Your task to perform on an android device: find which apps use the phone's location Image 0: 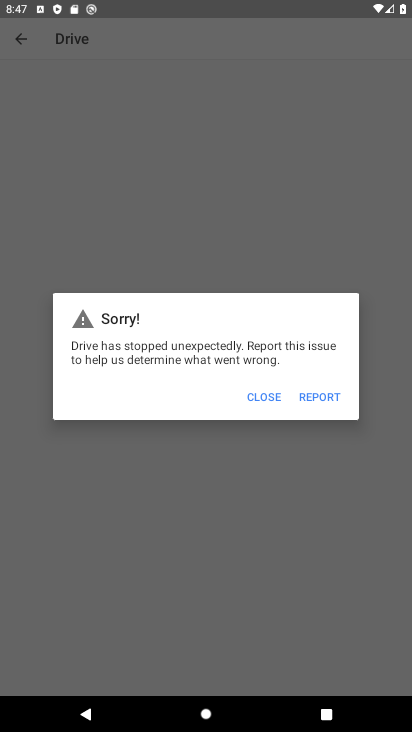
Step 0: press home button
Your task to perform on an android device: find which apps use the phone's location Image 1: 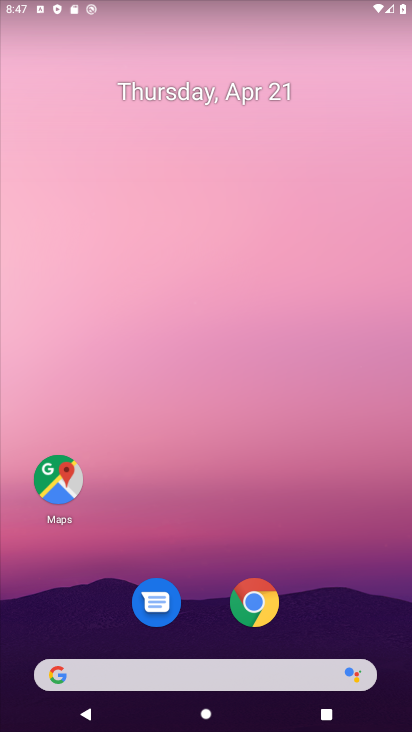
Step 1: drag from (220, 632) to (225, 195)
Your task to perform on an android device: find which apps use the phone's location Image 2: 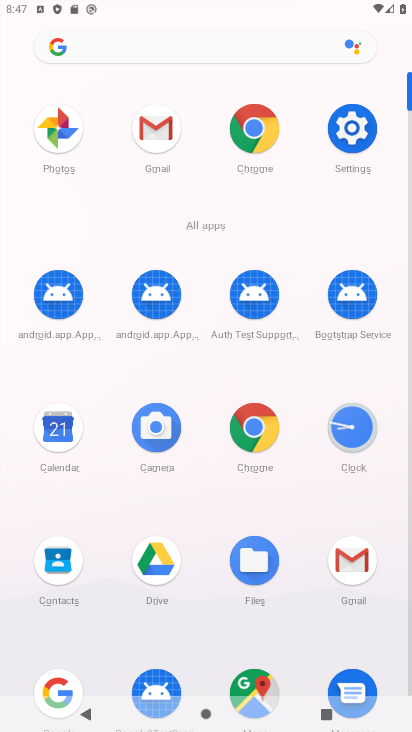
Step 2: click (354, 140)
Your task to perform on an android device: find which apps use the phone's location Image 3: 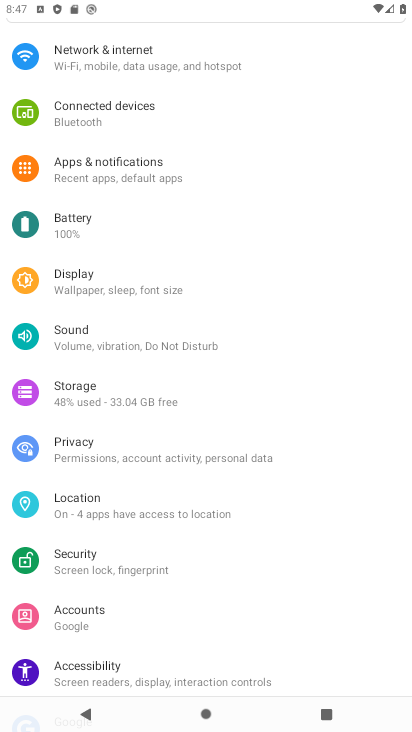
Step 3: click (152, 516)
Your task to perform on an android device: find which apps use the phone's location Image 4: 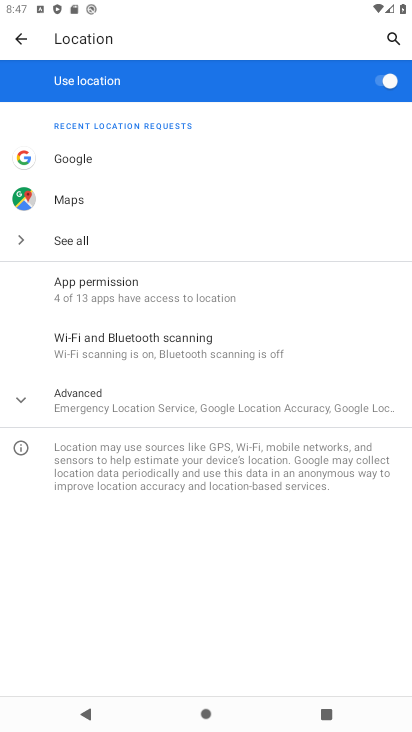
Step 4: click (99, 240)
Your task to perform on an android device: find which apps use the phone's location Image 5: 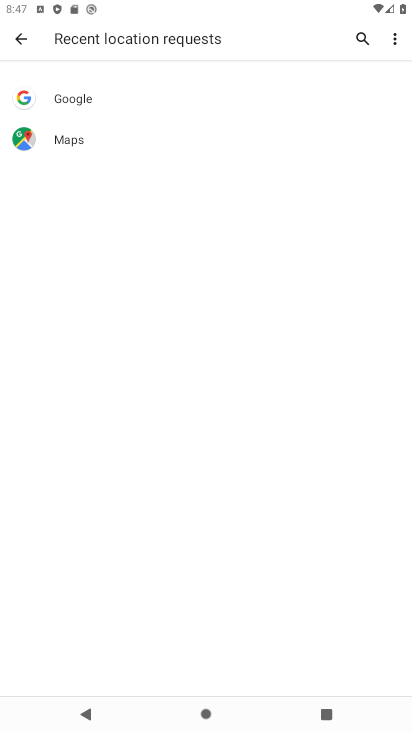
Step 5: task complete